Your task to perform on an android device: turn off notifications settings in the gmail app Image 0: 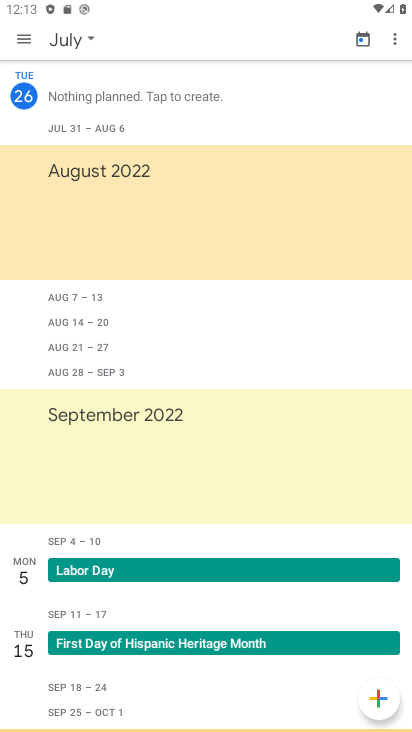
Step 0: press home button
Your task to perform on an android device: turn off notifications settings in the gmail app Image 1: 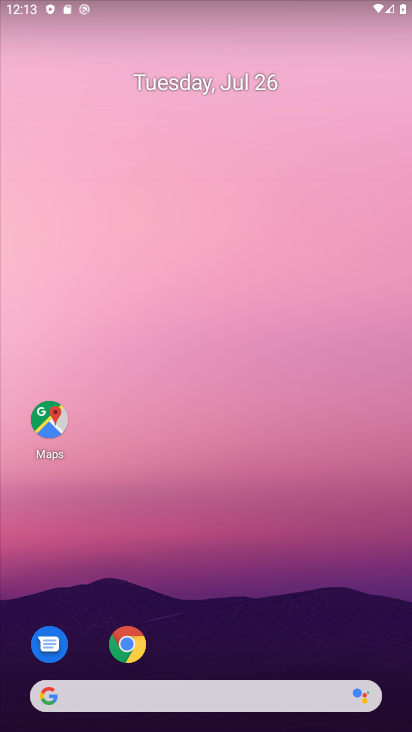
Step 1: drag from (205, 624) to (189, 113)
Your task to perform on an android device: turn off notifications settings in the gmail app Image 2: 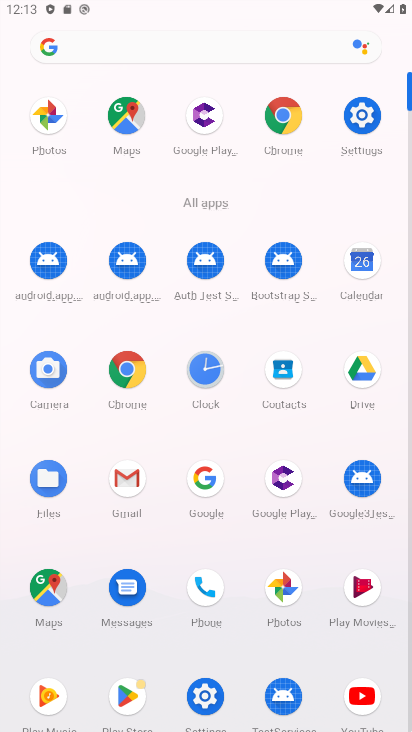
Step 2: click (126, 476)
Your task to perform on an android device: turn off notifications settings in the gmail app Image 3: 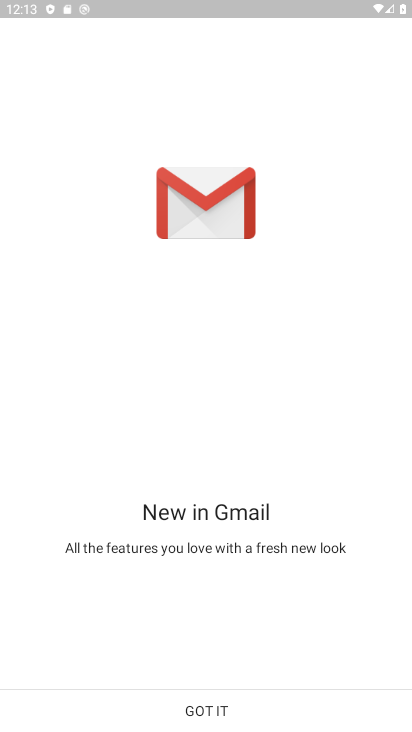
Step 3: click (231, 710)
Your task to perform on an android device: turn off notifications settings in the gmail app Image 4: 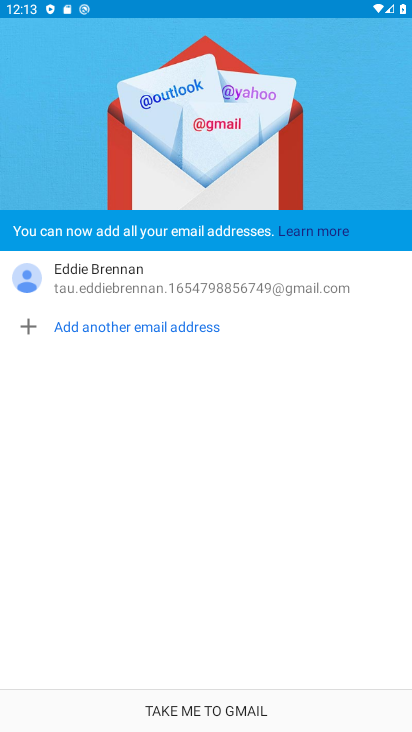
Step 4: click (231, 710)
Your task to perform on an android device: turn off notifications settings in the gmail app Image 5: 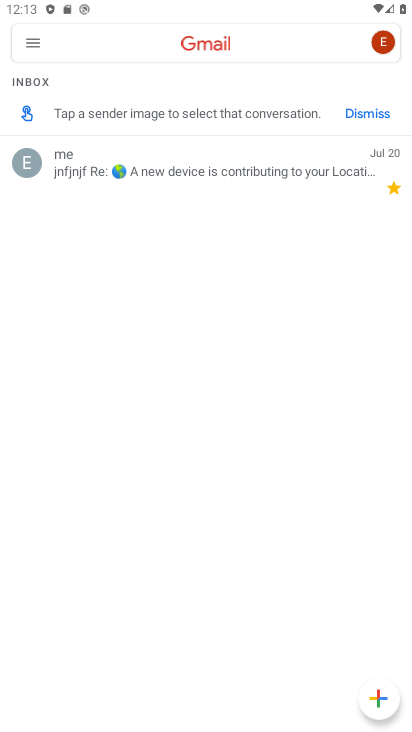
Step 5: click (39, 38)
Your task to perform on an android device: turn off notifications settings in the gmail app Image 6: 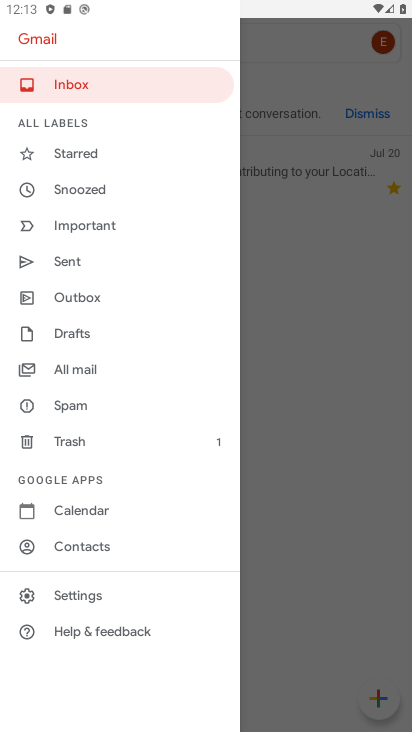
Step 6: click (99, 605)
Your task to perform on an android device: turn off notifications settings in the gmail app Image 7: 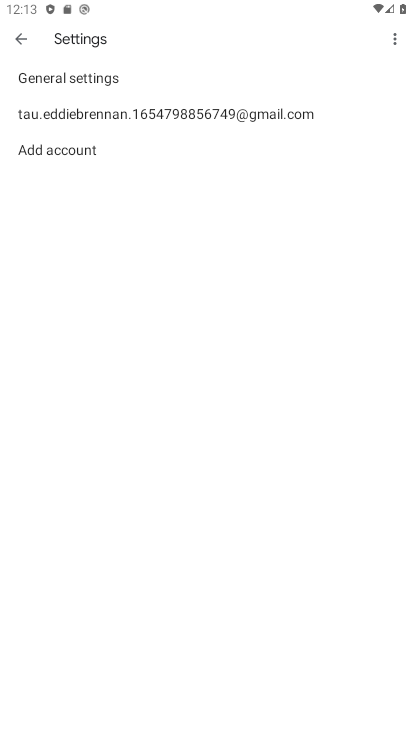
Step 7: click (92, 116)
Your task to perform on an android device: turn off notifications settings in the gmail app Image 8: 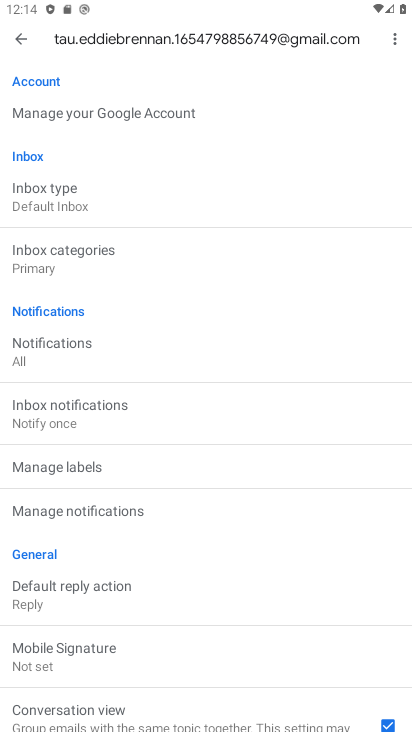
Step 8: click (73, 360)
Your task to perform on an android device: turn off notifications settings in the gmail app Image 9: 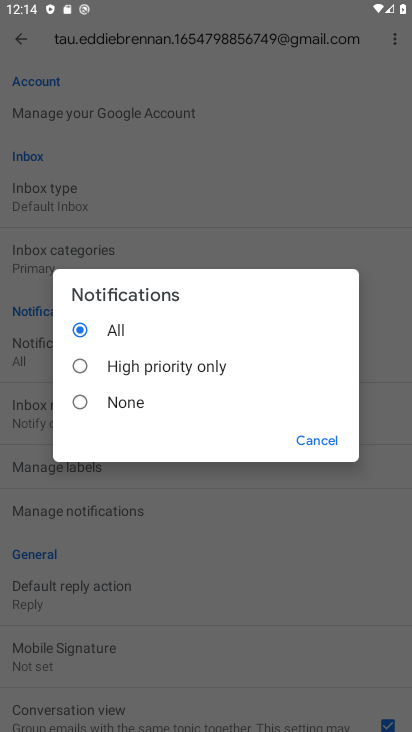
Step 9: click (98, 399)
Your task to perform on an android device: turn off notifications settings in the gmail app Image 10: 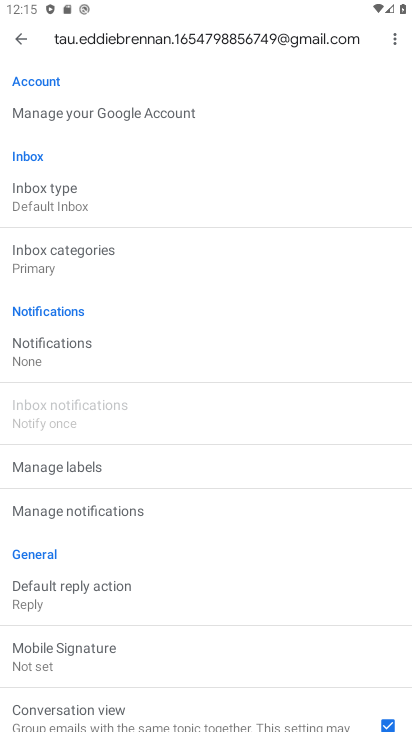
Step 10: task complete